Your task to perform on an android device: check google app version Image 0: 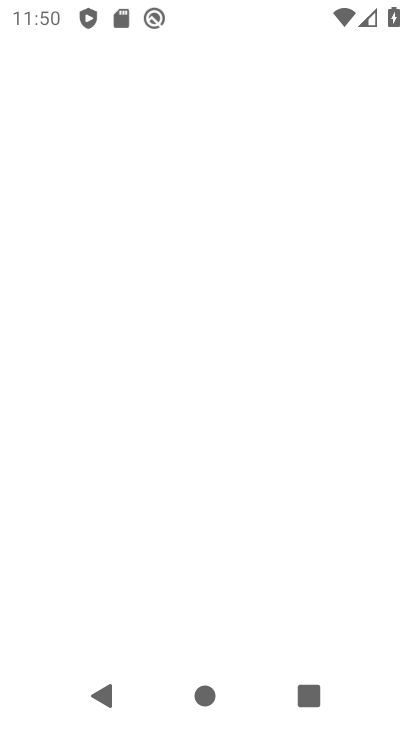
Step 0: press back button
Your task to perform on an android device: check google app version Image 1: 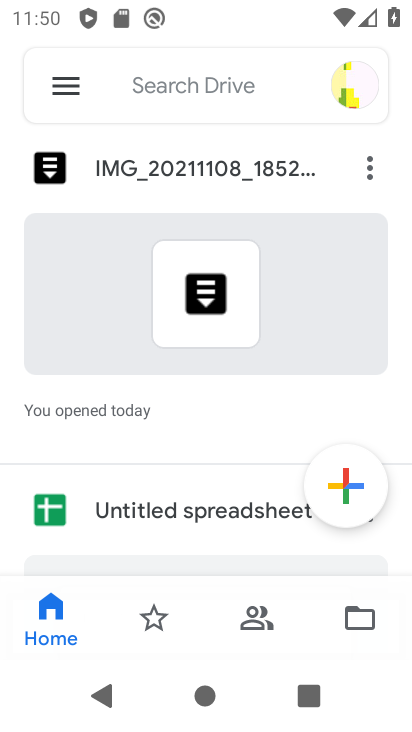
Step 1: press back button
Your task to perform on an android device: check google app version Image 2: 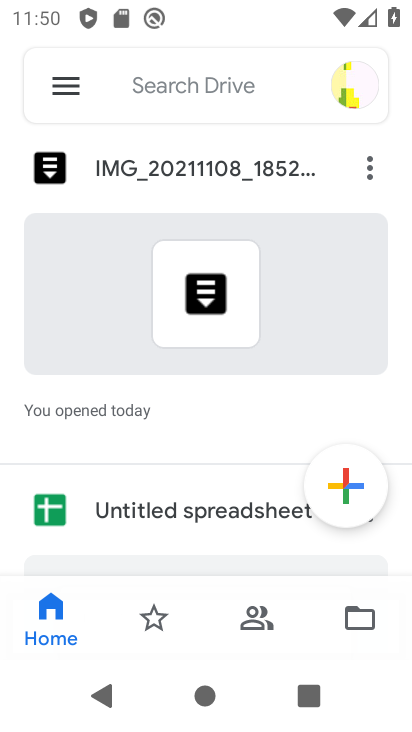
Step 2: press back button
Your task to perform on an android device: check google app version Image 3: 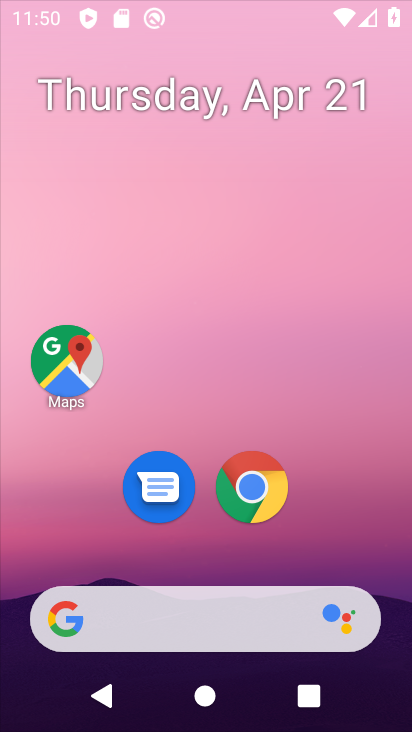
Step 3: press back button
Your task to perform on an android device: check google app version Image 4: 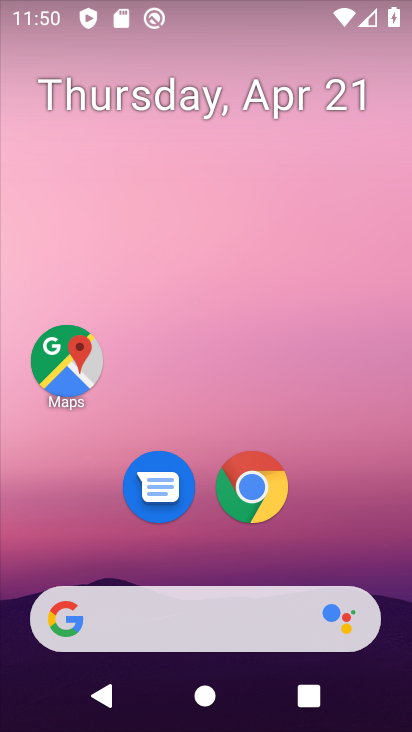
Step 4: drag from (189, 558) to (267, 99)
Your task to perform on an android device: check google app version Image 5: 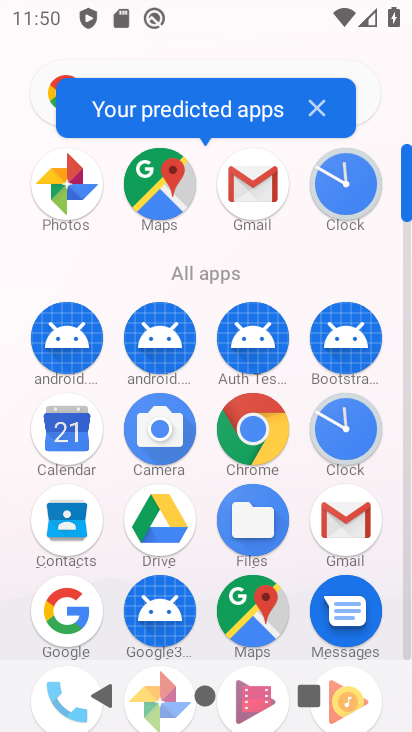
Step 5: drag from (154, 670) to (208, 330)
Your task to perform on an android device: check google app version Image 6: 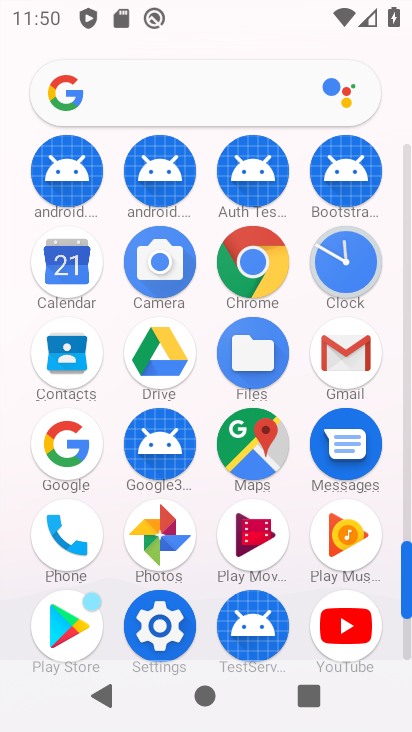
Step 6: click (159, 607)
Your task to perform on an android device: check google app version Image 7: 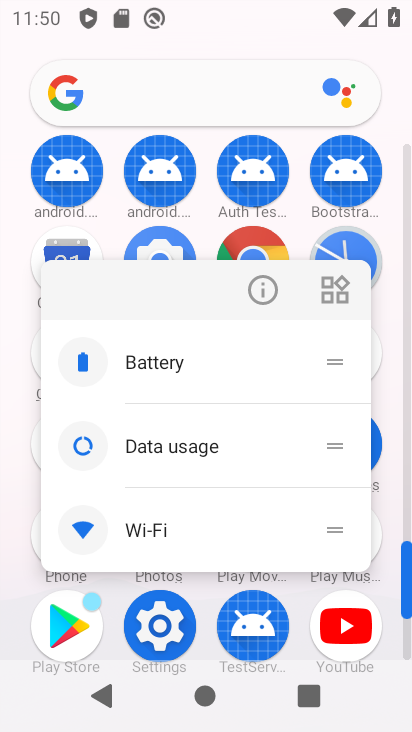
Step 7: click (139, 633)
Your task to perform on an android device: check google app version Image 8: 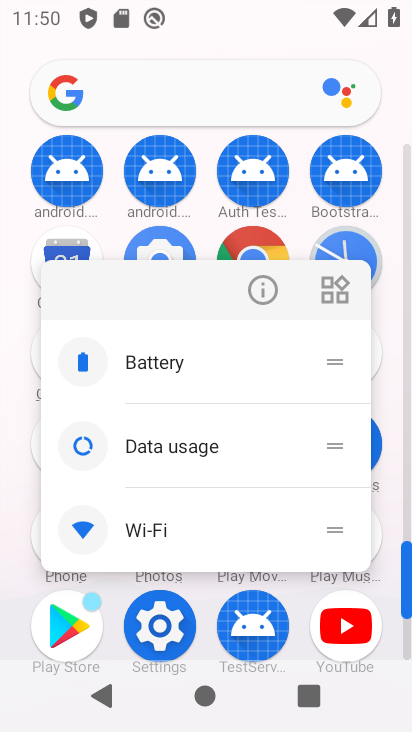
Step 8: click (139, 633)
Your task to perform on an android device: check google app version Image 9: 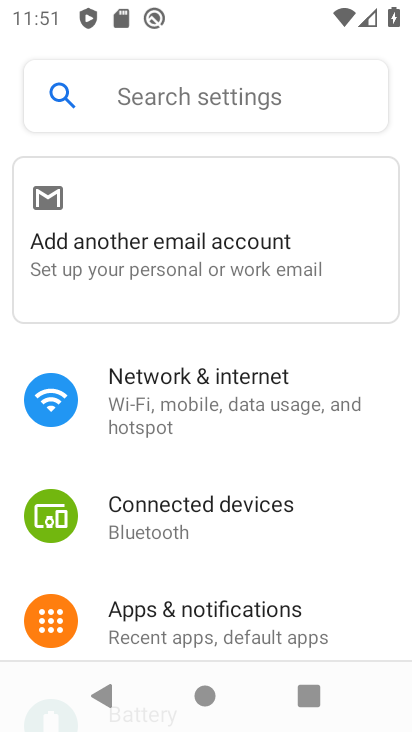
Step 9: drag from (176, 606) to (213, 401)
Your task to perform on an android device: check google app version Image 10: 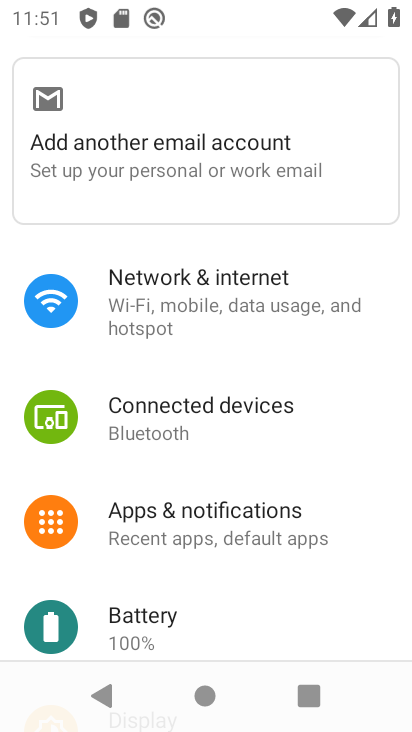
Step 10: click (191, 517)
Your task to perform on an android device: check google app version Image 11: 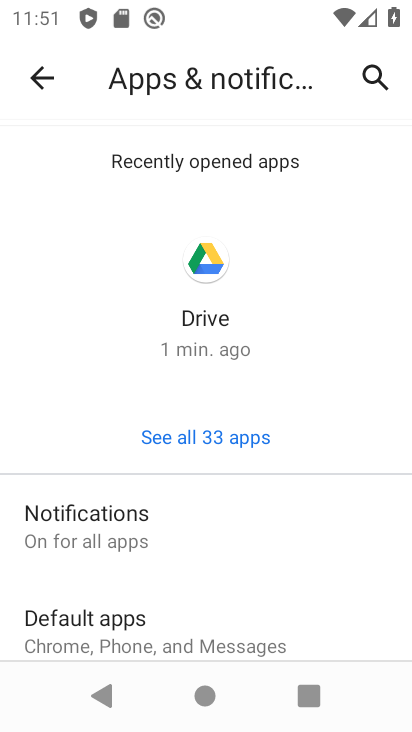
Step 11: click (232, 428)
Your task to perform on an android device: check google app version Image 12: 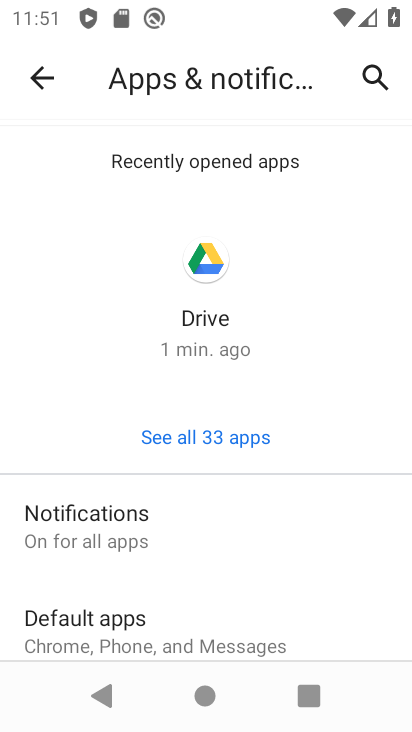
Step 12: click (232, 428)
Your task to perform on an android device: check google app version Image 13: 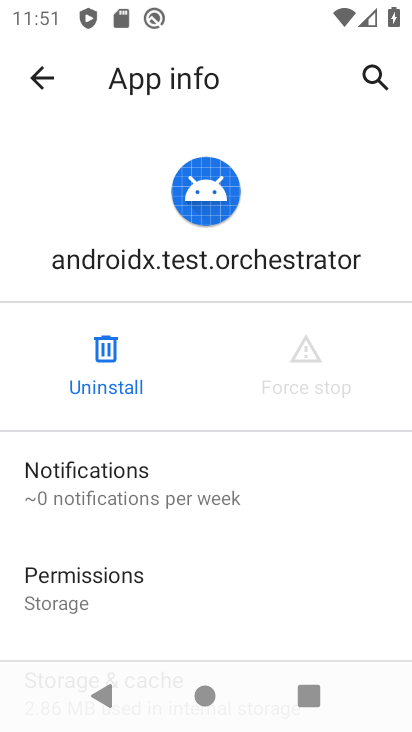
Step 13: press back button
Your task to perform on an android device: check google app version Image 14: 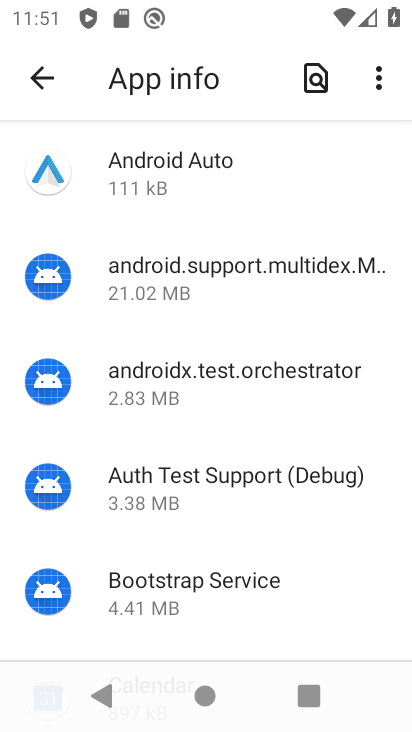
Step 14: drag from (208, 589) to (296, 104)
Your task to perform on an android device: check google app version Image 15: 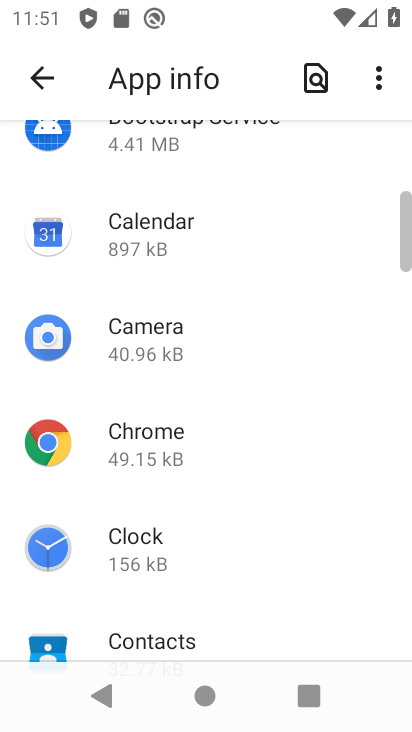
Step 15: drag from (187, 615) to (301, 143)
Your task to perform on an android device: check google app version Image 16: 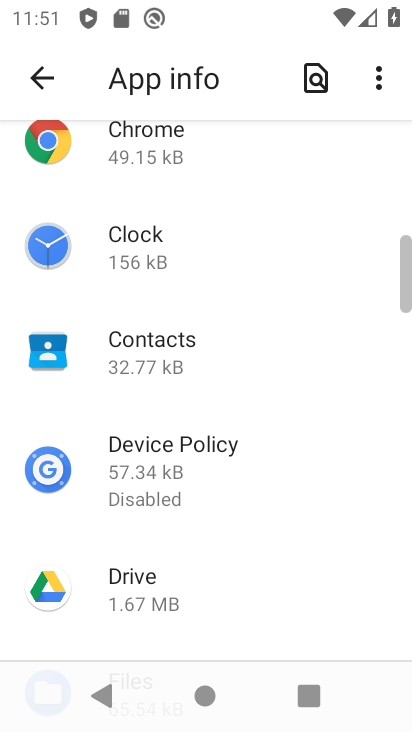
Step 16: drag from (197, 652) to (314, 185)
Your task to perform on an android device: check google app version Image 17: 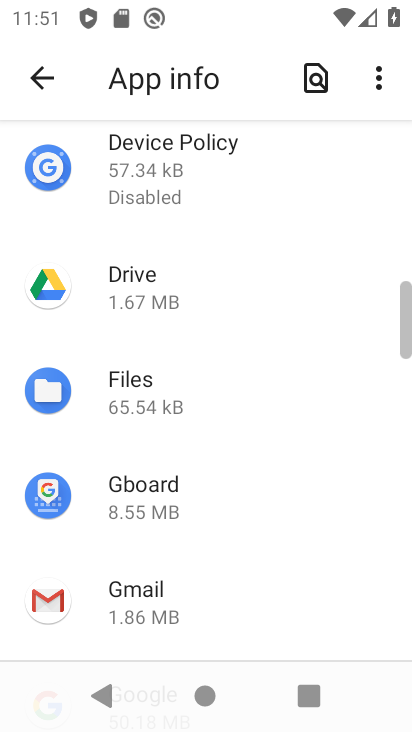
Step 17: drag from (204, 612) to (296, 254)
Your task to perform on an android device: check google app version Image 18: 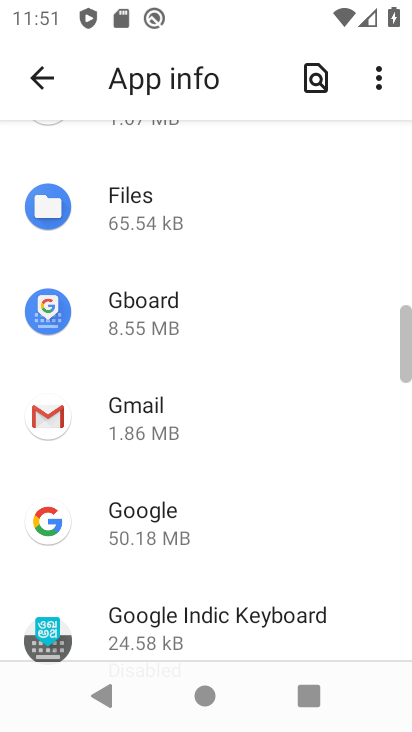
Step 18: click (194, 532)
Your task to perform on an android device: check google app version Image 19: 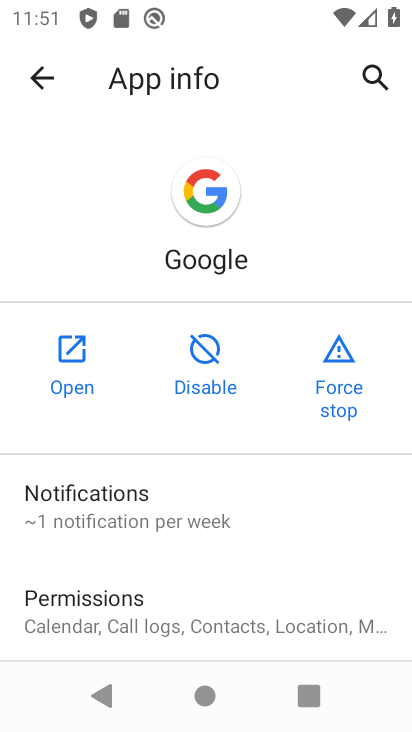
Step 19: drag from (218, 603) to (318, 86)
Your task to perform on an android device: check google app version Image 20: 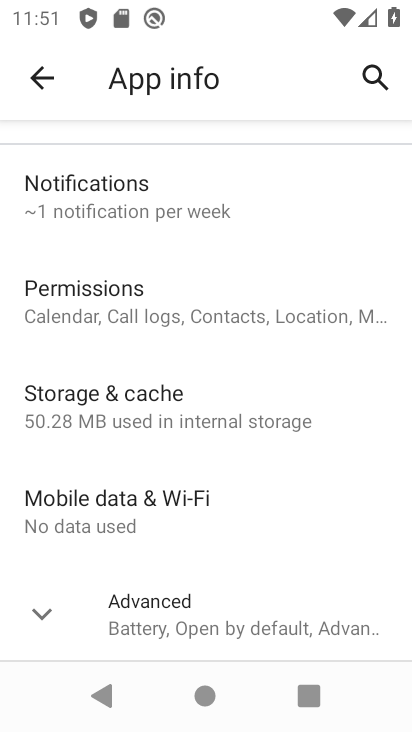
Step 20: click (193, 634)
Your task to perform on an android device: check google app version Image 21: 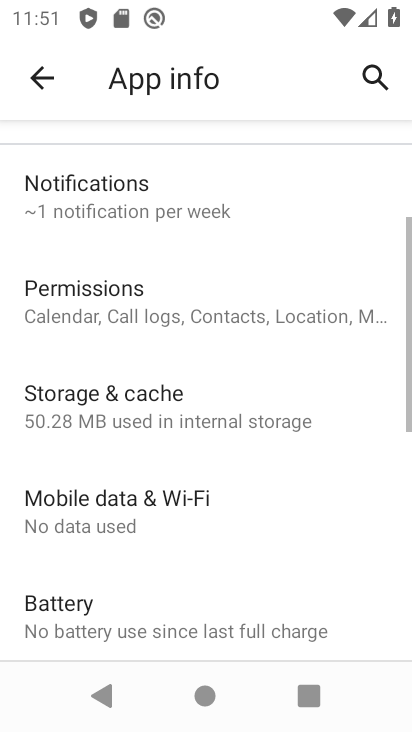
Step 21: task complete